Your task to perform on an android device: install app "Google Docs" Image 0: 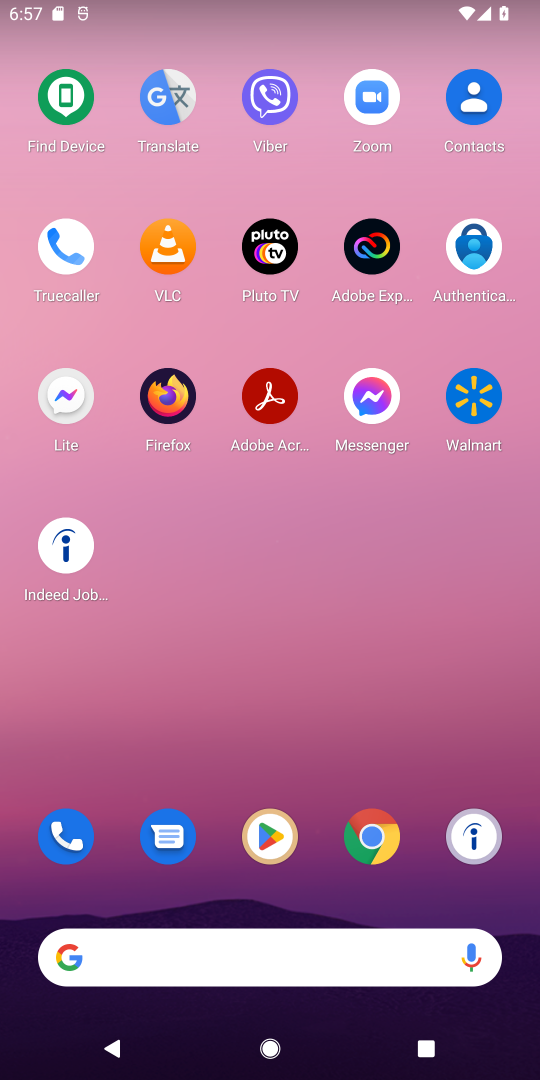
Step 0: press home button
Your task to perform on an android device: install app "Google Docs" Image 1: 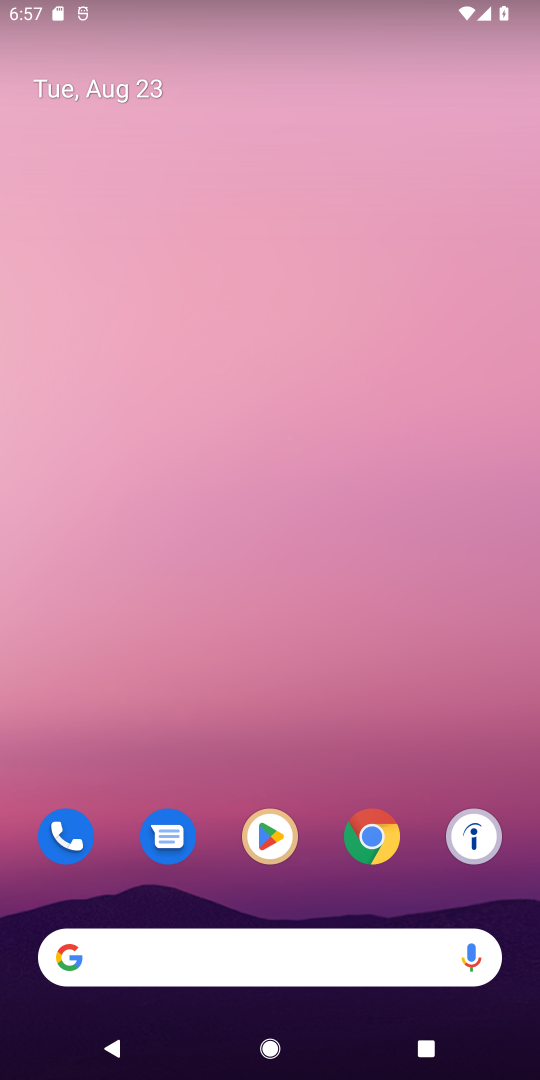
Step 1: click (273, 831)
Your task to perform on an android device: install app "Google Docs" Image 2: 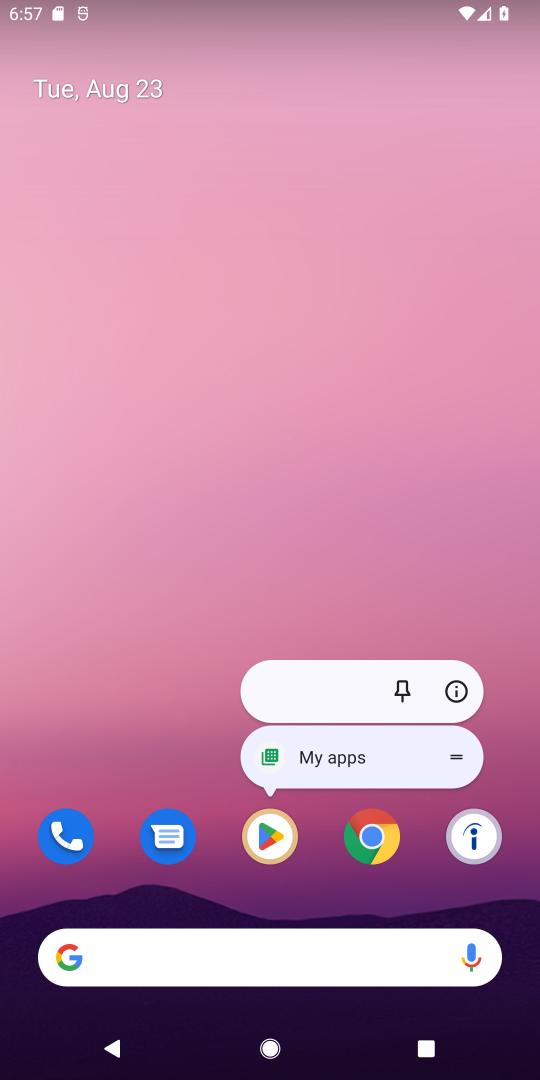
Step 2: click (273, 831)
Your task to perform on an android device: install app "Google Docs" Image 3: 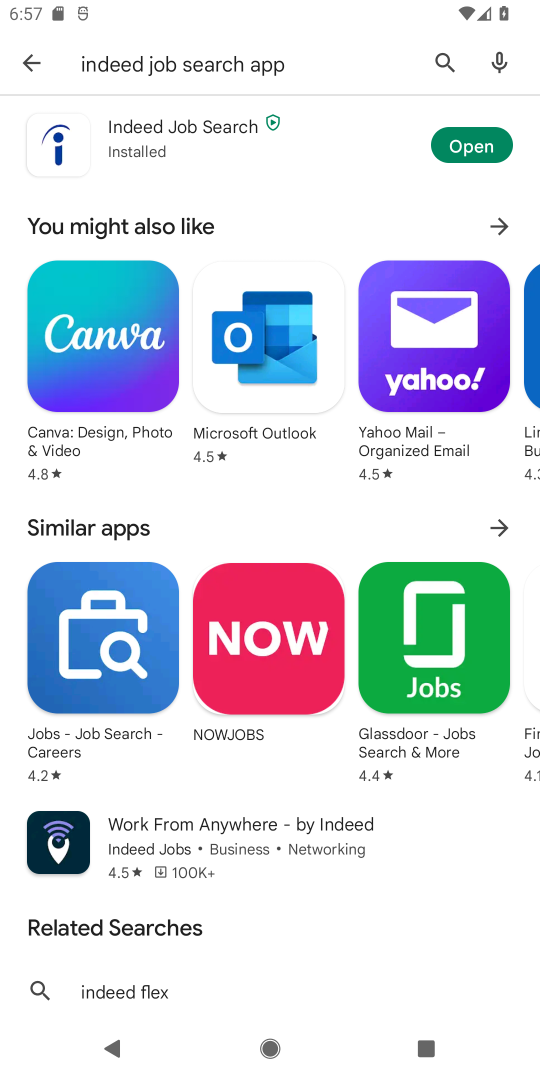
Step 3: click (447, 53)
Your task to perform on an android device: install app "Google Docs" Image 4: 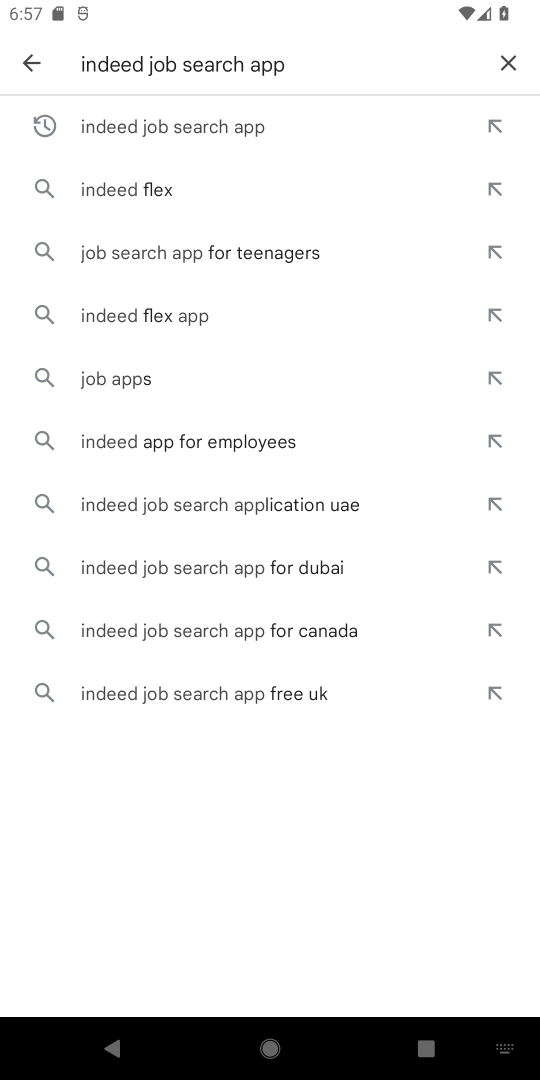
Step 4: click (498, 56)
Your task to perform on an android device: install app "Google Docs" Image 5: 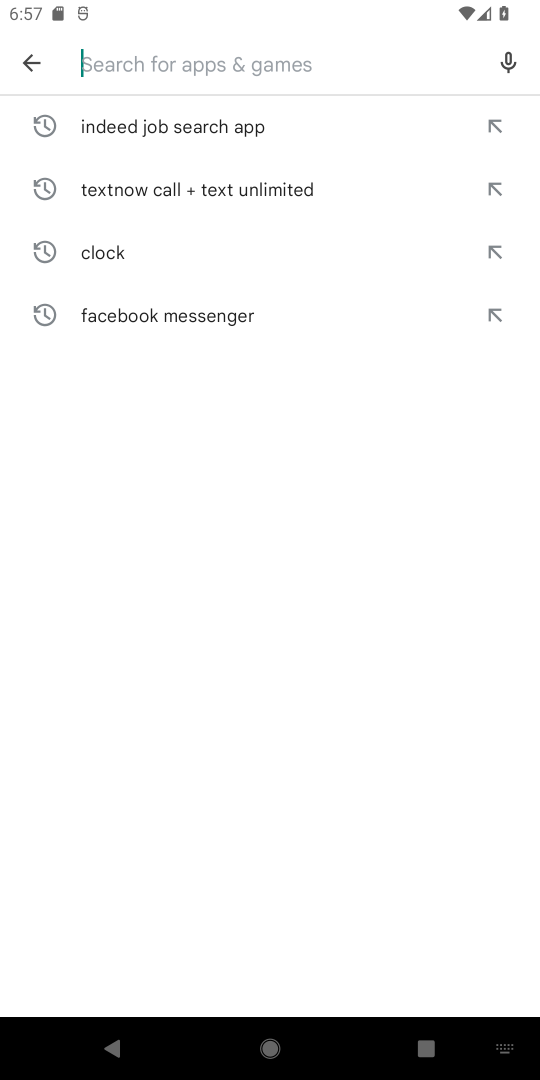
Step 5: type "Google Docs"
Your task to perform on an android device: install app "Google Docs" Image 6: 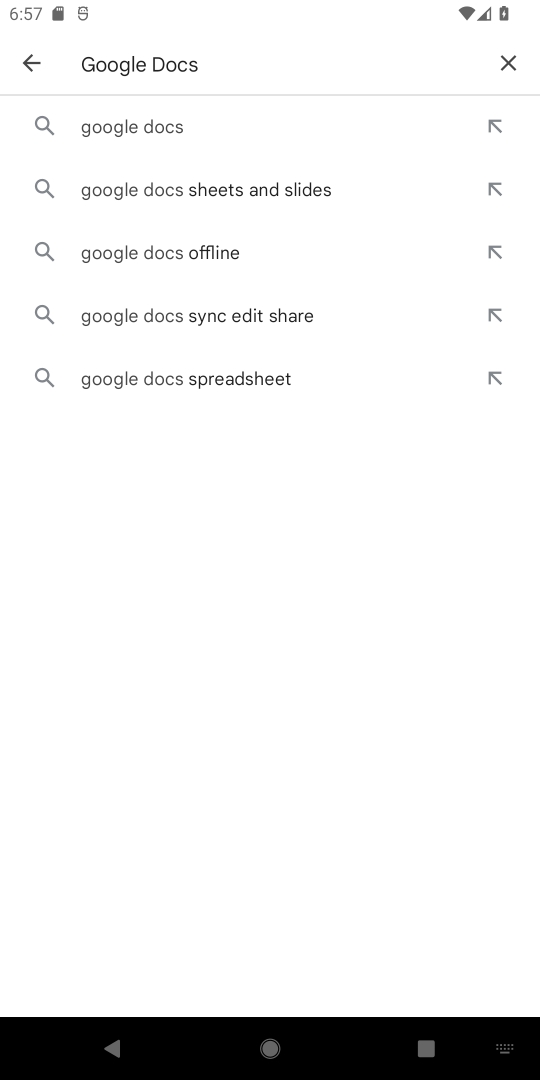
Step 6: click (129, 125)
Your task to perform on an android device: install app "Google Docs" Image 7: 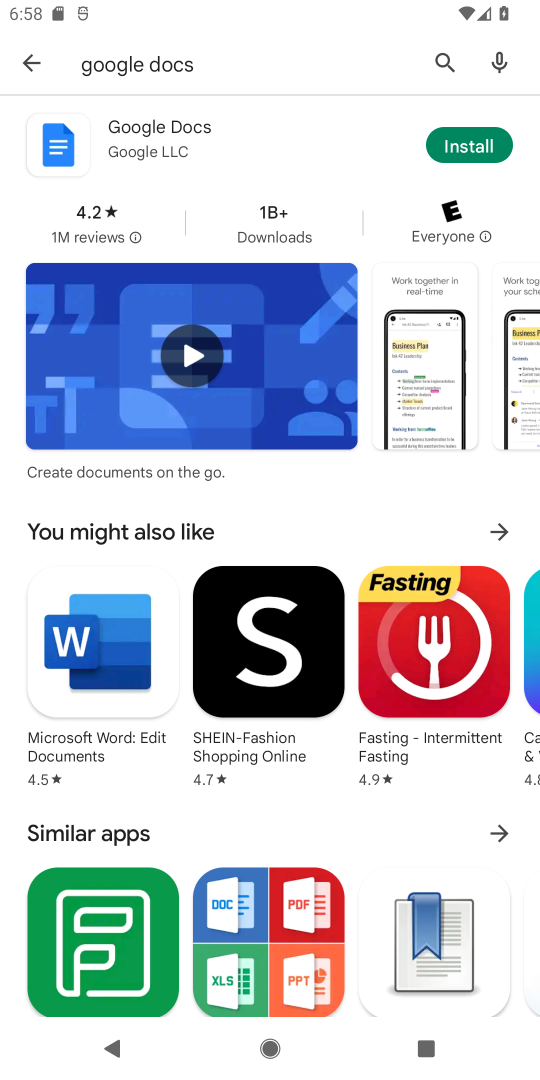
Step 7: click (449, 134)
Your task to perform on an android device: install app "Google Docs" Image 8: 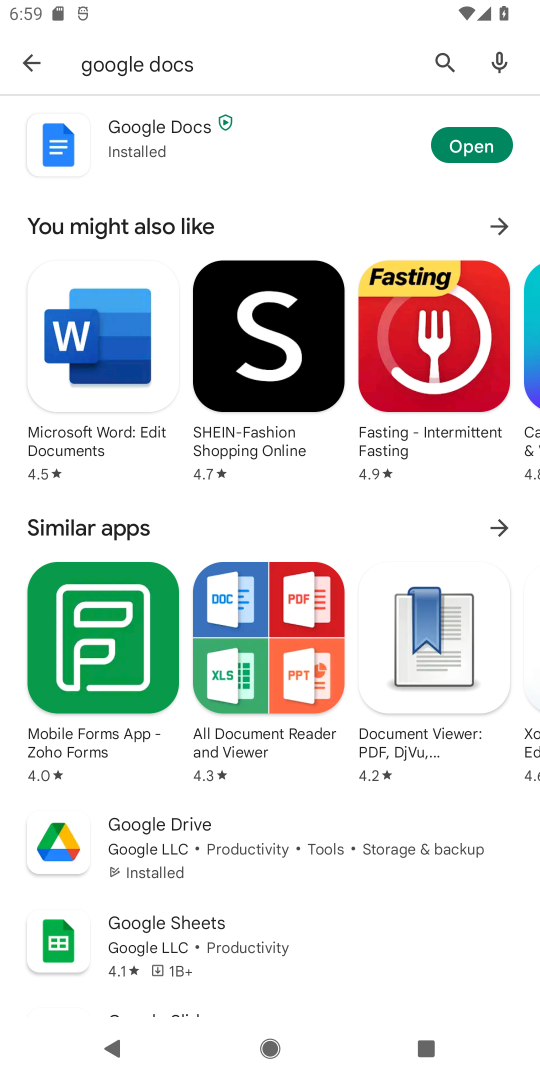
Step 8: task complete